Your task to perform on an android device: turn on sleep mode Image 0: 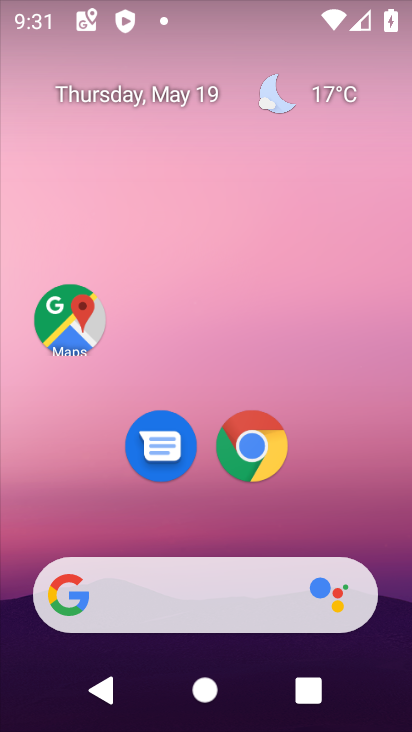
Step 0: drag from (198, 550) to (295, 16)
Your task to perform on an android device: turn on sleep mode Image 1: 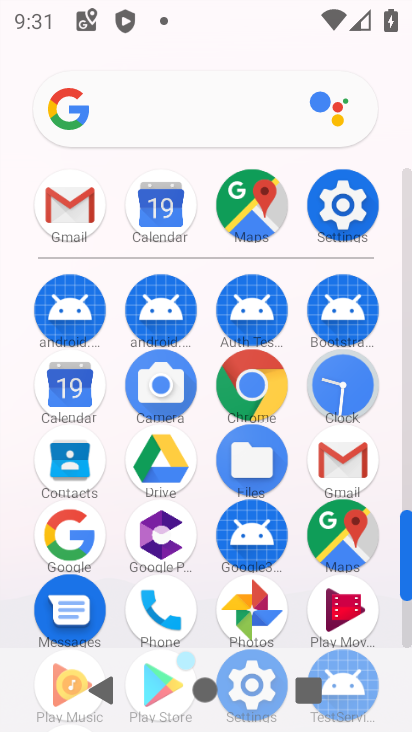
Step 1: click (346, 221)
Your task to perform on an android device: turn on sleep mode Image 2: 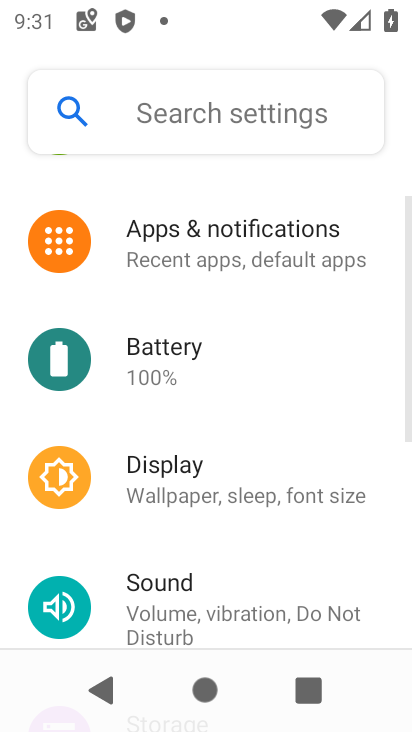
Step 2: click (251, 114)
Your task to perform on an android device: turn on sleep mode Image 3: 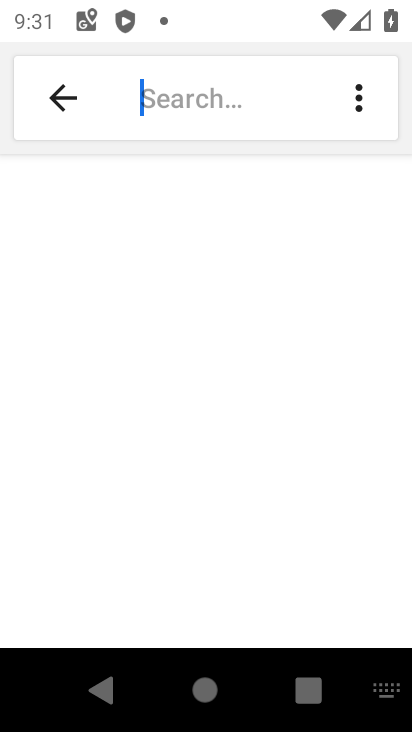
Step 3: type "sleep mode"
Your task to perform on an android device: turn on sleep mode Image 4: 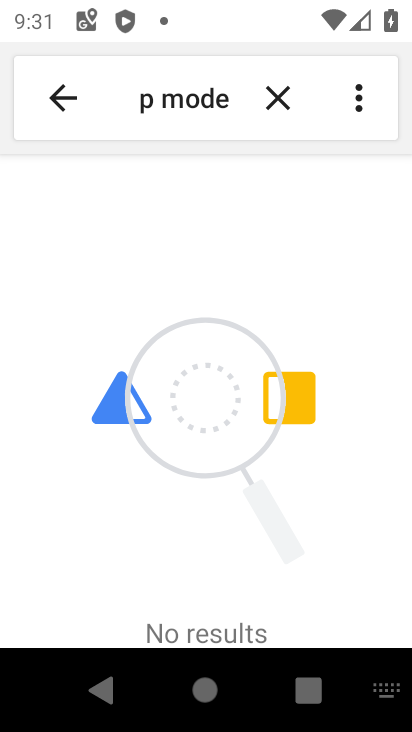
Step 4: task complete